Your task to perform on an android device: Open Google Maps and go to "Timeline" Image 0: 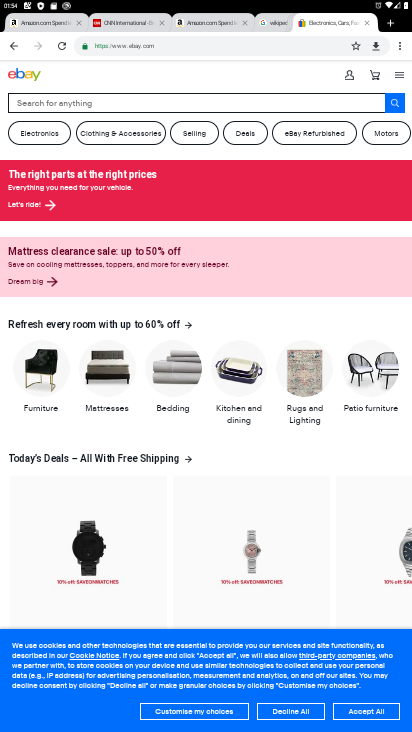
Step 0: click (396, 53)
Your task to perform on an android device: Open Google Maps and go to "Timeline" Image 1: 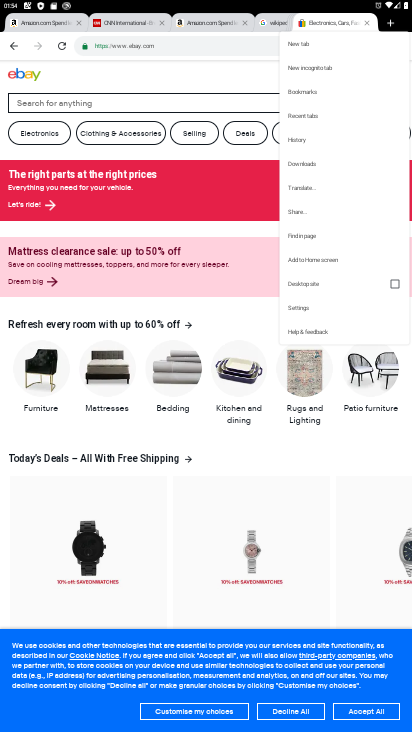
Step 1: press home button
Your task to perform on an android device: Open Google Maps and go to "Timeline" Image 2: 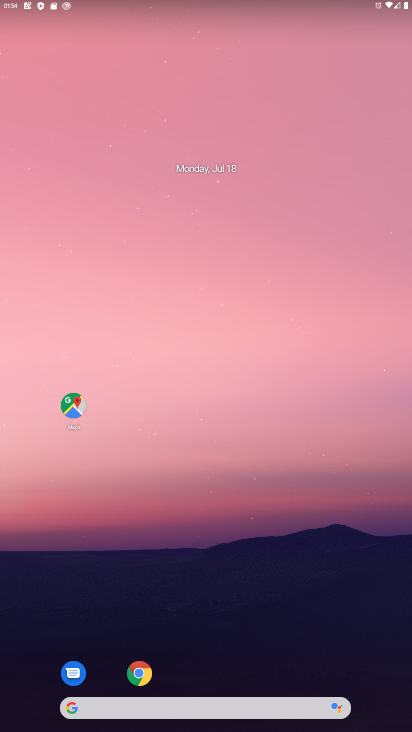
Step 2: click (67, 418)
Your task to perform on an android device: Open Google Maps and go to "Timeline" Image 3: 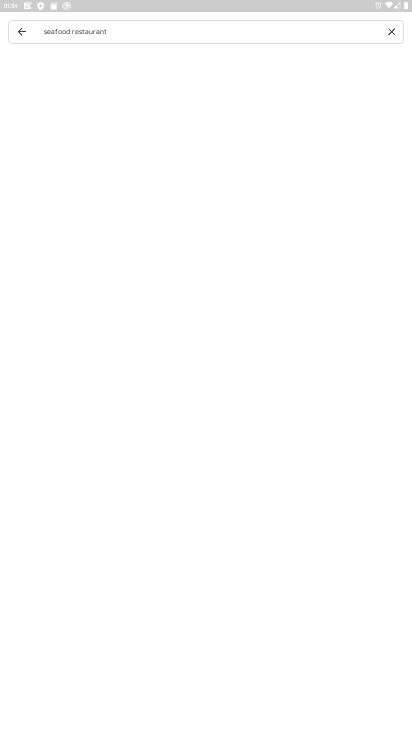
Step 3: click (24, 42)
Your task to perform on an android device: Open Google Maps and go to "Timeline" Image 4: 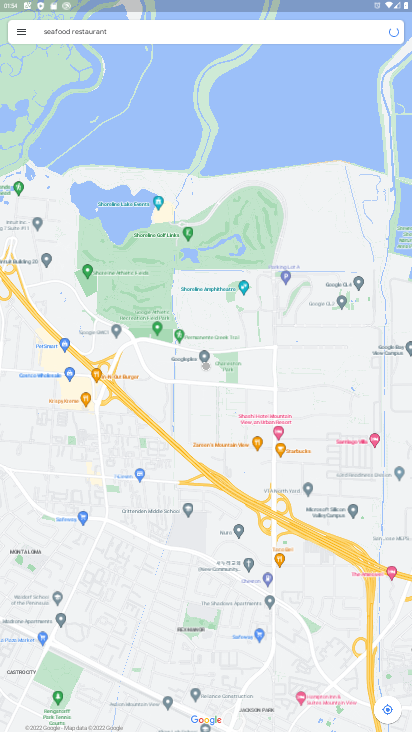
Step 4: click (21, 31)
Your task to perform on an android device: Open Google Maps and go to "Timeline" Image 5: 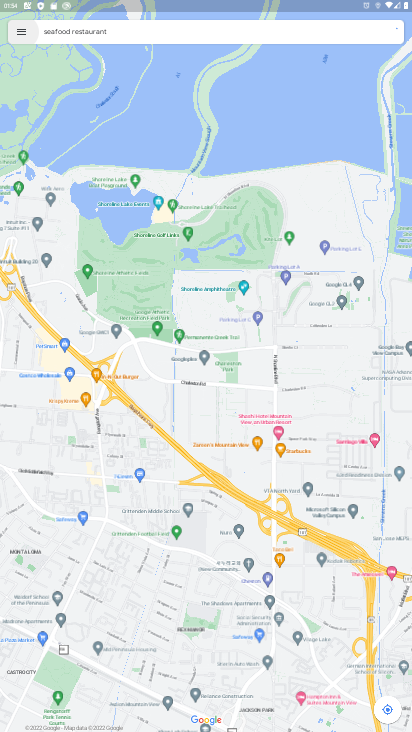
Step 5: click (25, 29)
Your task to perform on an android device: Open Google Maps and go to "Timeline" Image 6: 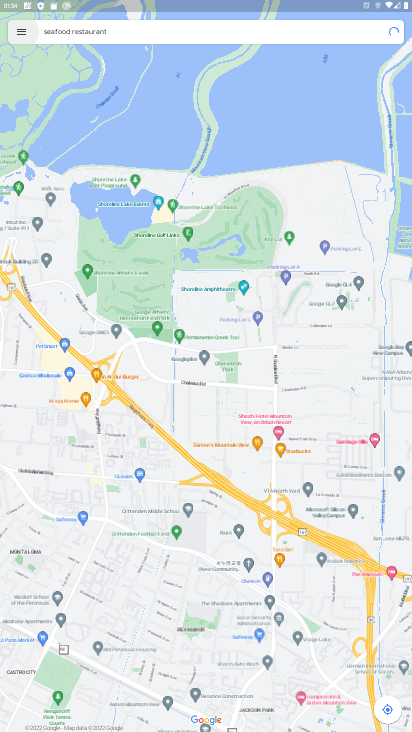
Step 6: task complete